Your task to perform on an android device: Turn off the flashlight Image 0: 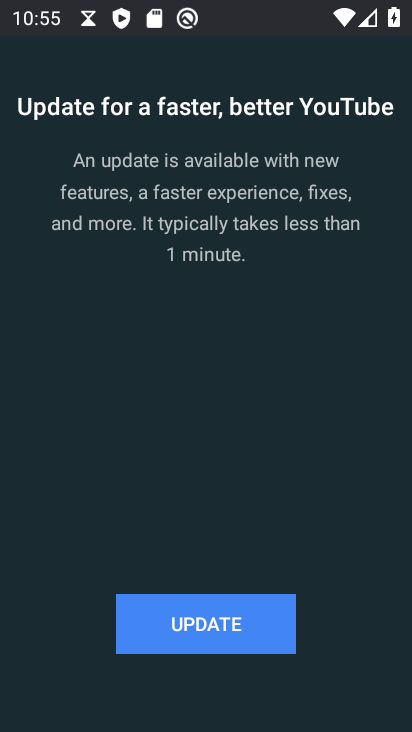
Step 0: press home button
Your task to perform on an android device: Turn off the flashlight Image 1: 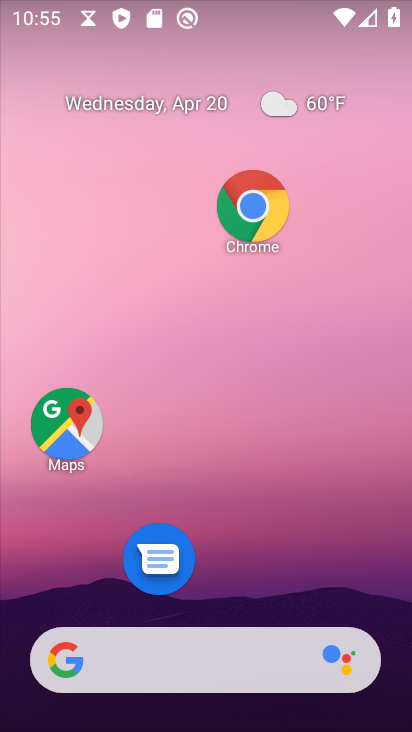
Step 1: drag from (296, 621) to (405, 138)
Your task to perform on an android device: Turn off the flashlight Image 2: 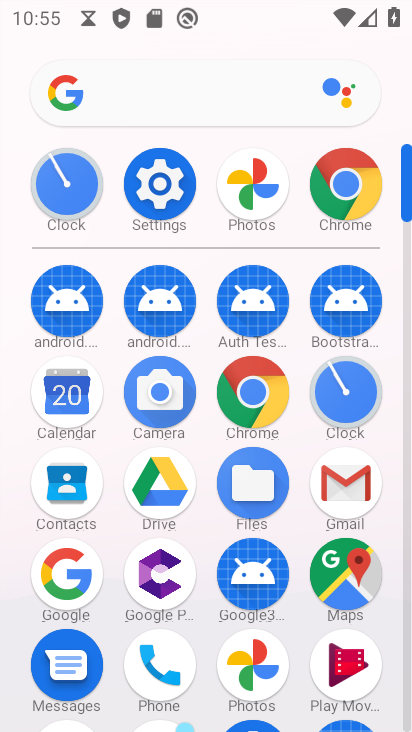
Step 2: drag from (276, 611) to (307, 73)
Your task to perform on an android device: Turn off the flashlight Image 3: 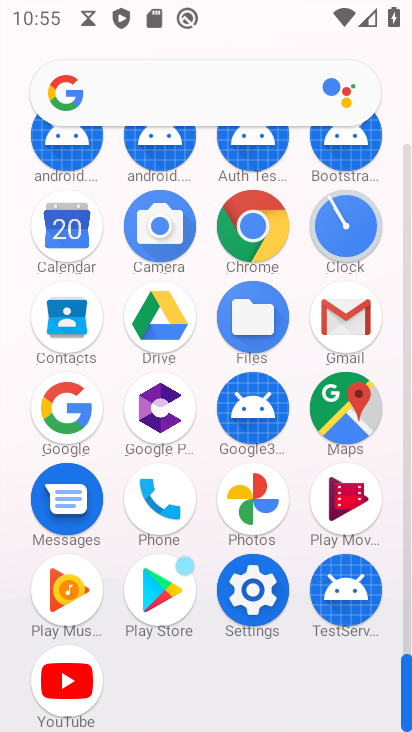
Step 3: click (246, 597)
Your task to perform on an android device: Turn off the flashlight Image 4: 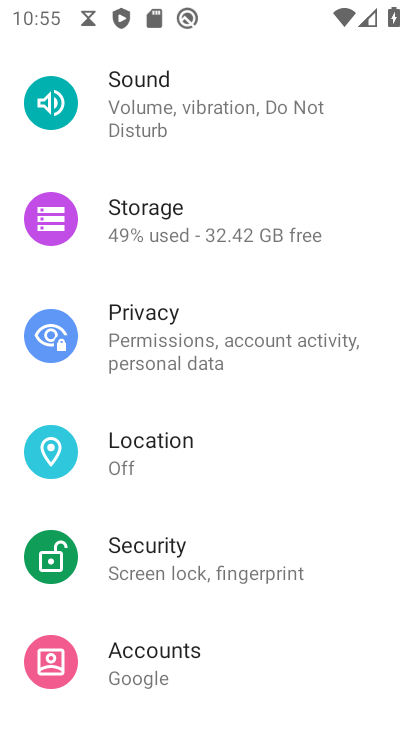
Step 4: task complete